Your task to perform on an android device: Clear all items from cart on newegg. Add dell xps to the cart on newegg Image 0: 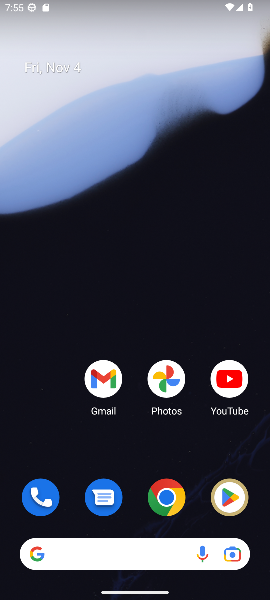
Step 0: click (157, 498)
Your task to perform on an android device: Clear all items from cart on newegg. Add dell xps to the cart on newegg Image 1: 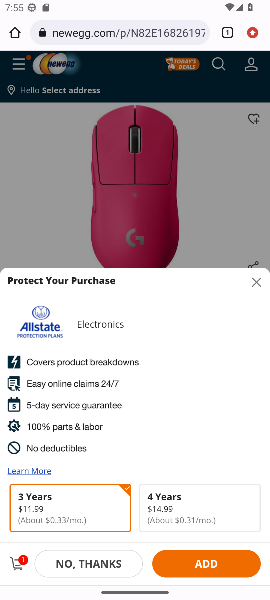
Step 1: click (261, 283)
Your task to perform on an android device: Clear all items from cart on newegg. Add dell xps to the cart on newegg Image 2: 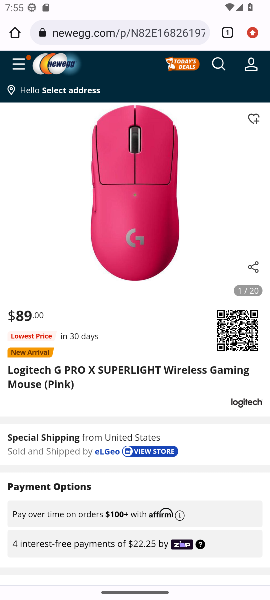
Step 2: drag from (180, 197) to (192, 524)
Your task to perform on an android device: Clear all items from cart on newegg. Add dell xps to the cart on newegg Image 3: 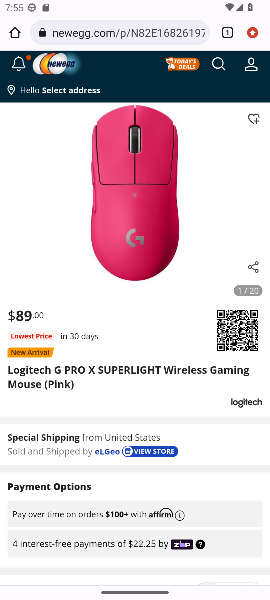
Step 3: press back button
Your task to perform on an android device: Clear all items from cart on newegg. Add dell xps to the cart on newegg Image 4: 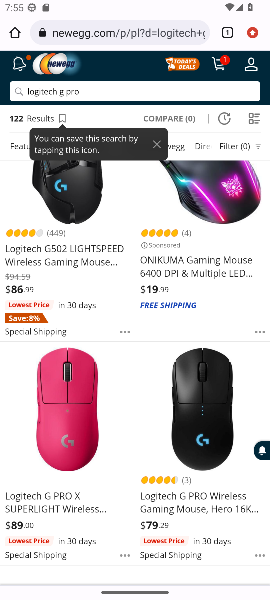
Step 4: click (216, 66)
Your task to perform on an android device: Clear all items from cart on newegg. Add dell xps to the cart on newegg Image 5: 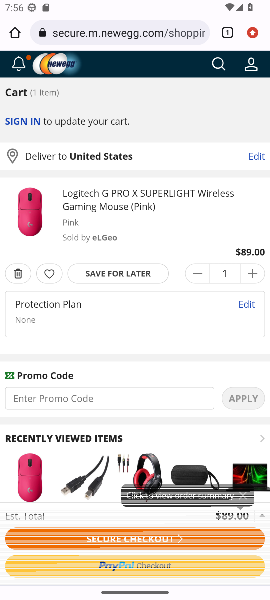
Step 5: click (17, 274)
Your task to perform on an android device: Clear all items from cart on newegg. Add dell xps to the cart on newegg Image 6: 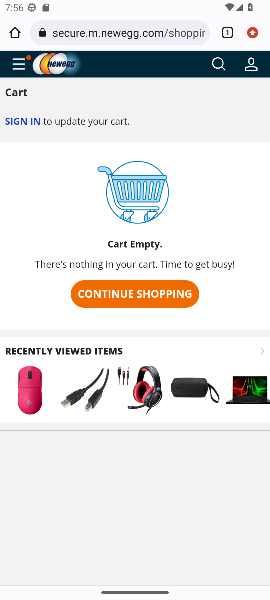
Step 6: click (170, 301)
Your task to perform on an android device: Clear all items from cart on newegg. Add dell xps to the cart on newegg Image 7: 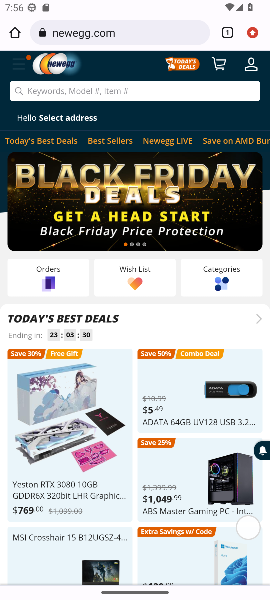
Step 7: click (99, 93)
Your task to perform on an android device: Clear all items from cart on newegg. Add dell xps to the cart on newegg Image 8: 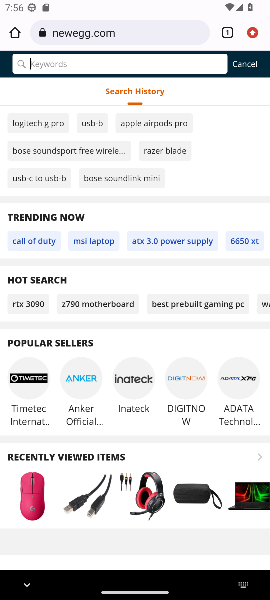
Step 8: type "dell xps"
Your task to perform on an android device: Clear all items from cart on newegg. Add dell xps to the cart on newegg Image 9: 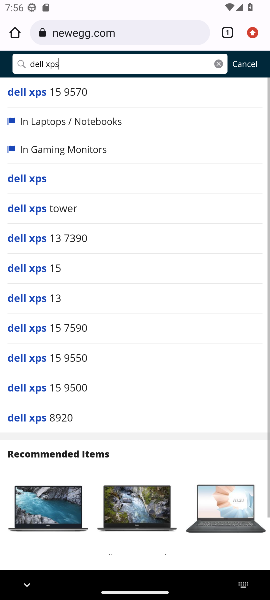
Step 9: click (31, 183)
Your task to perform on an android device: Clear all items from cart on newegg. Add dell xps to the cart on newegg Image 10: 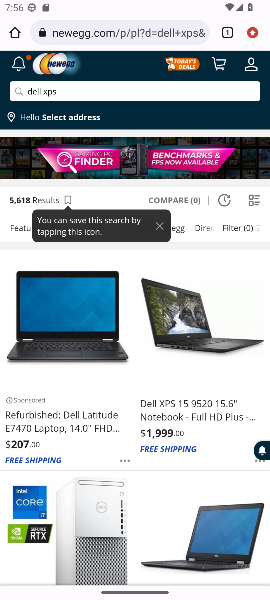
Step 10: click (188, 333)
Your task to perform on an android device: Clear all items from cart on newegg. Add dell xps to the cart on newegg Image 11: 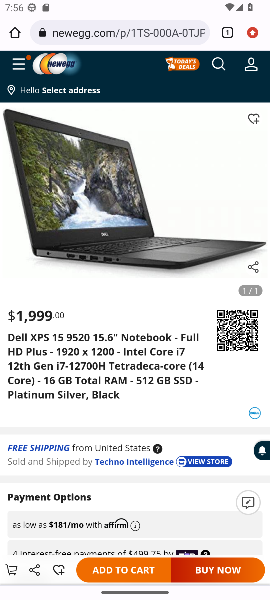
Step 11: click (129, 569)
Your task to perform on an android device: Clear all items from cart on newegg. Add dell xps to the cart on newegg Image 12: 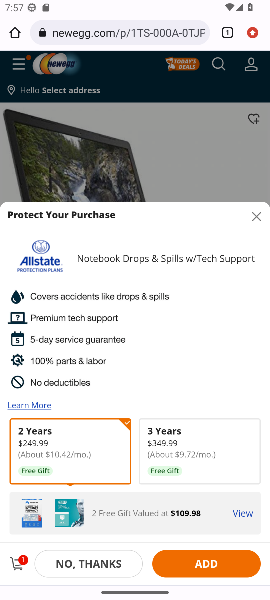
Step 12: task complete